Your task to perform on an android device: make emails show in primary in the gmail app Image 0: 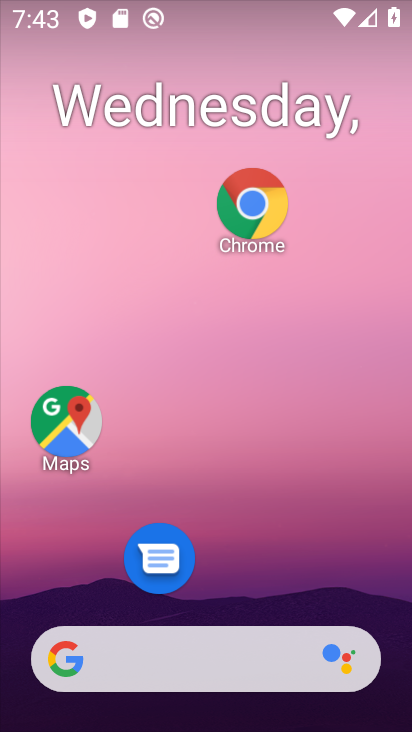
Step 0: press home button
Your task to perform on an android device: make emails show in primary in the gmail app Image 1: 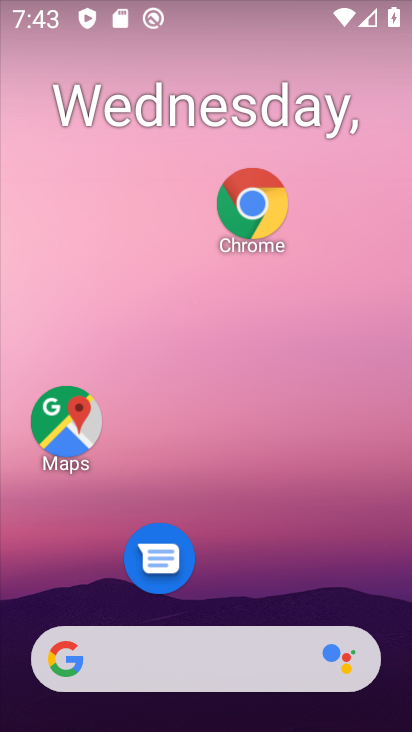
Step 1: drag from (214, 609) to (257, 86)
Your task to perform on an android device: make emails show in primary in the gmail app Image 2: 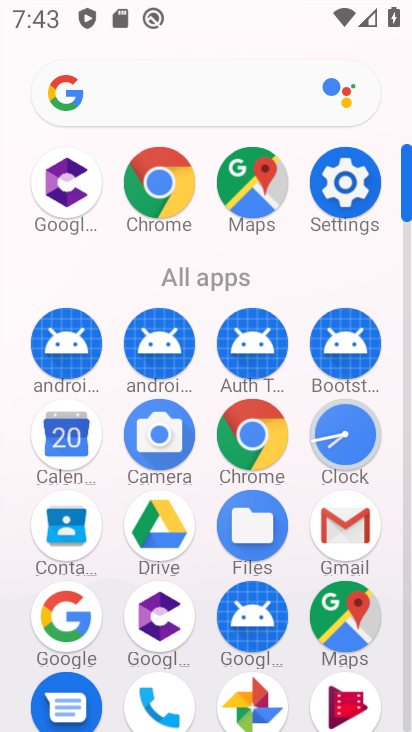
Step 2: click (344, 518)
Your task to perform on an android device: make emails show in primary in the gmail app Image 3: 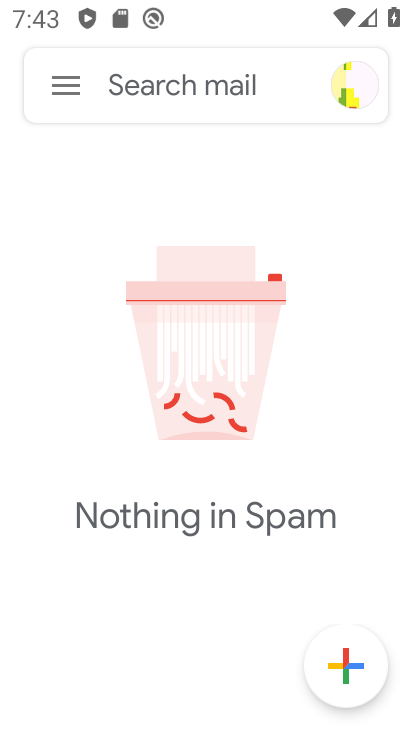
Step 3: click (66, 77)
Your task to perform on an android device: make emails show in primary in the gmail app Image 4: 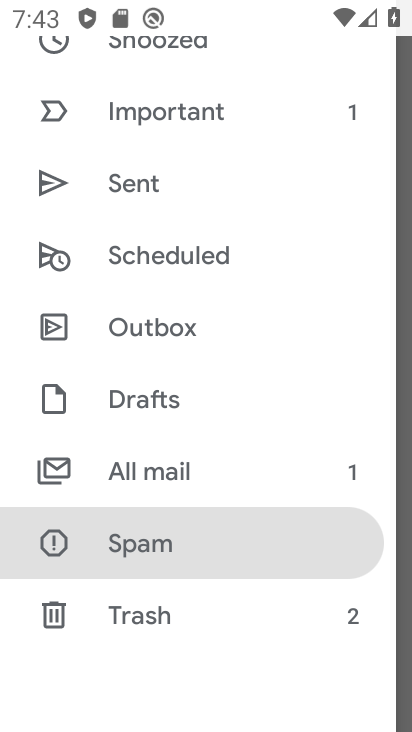
Step 4: drag from (163, 621) to (198, 65)
Your task to perform on an android device: make emails show in primary in the gmail app Image 5: 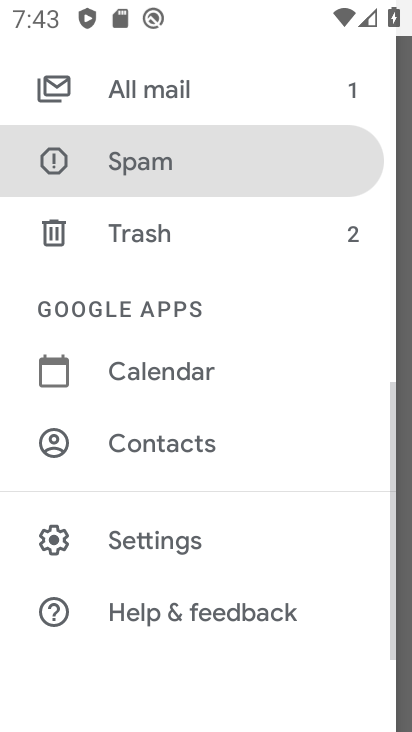
Step 5: click (165, 539)
Your task to perform on an android device: make emails show in primary in the gmail app Image 6: 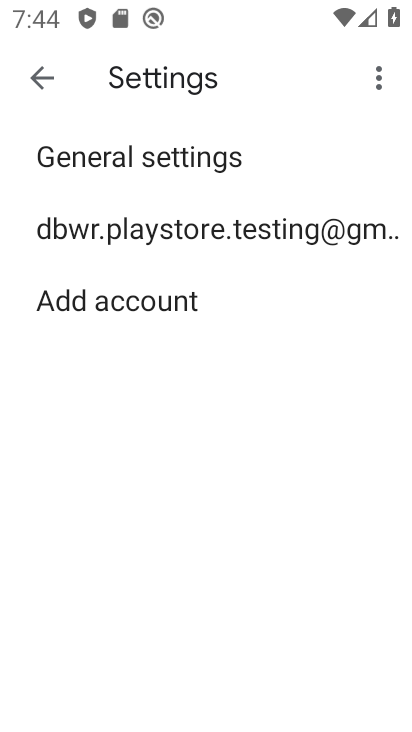
Step 6: click (228, 227)
Your task to perform on an android device: make emails show in primary in the gmail app Image 7: 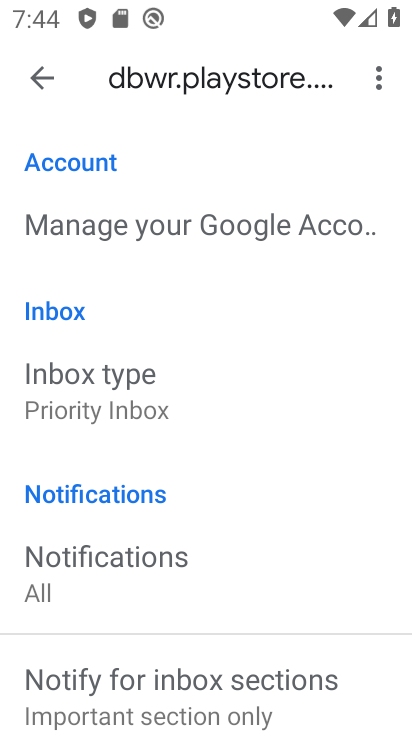
Step 7: click (183, 386)
Your task to perform on an android device: make emails show in primary in the gmail app Image 8: 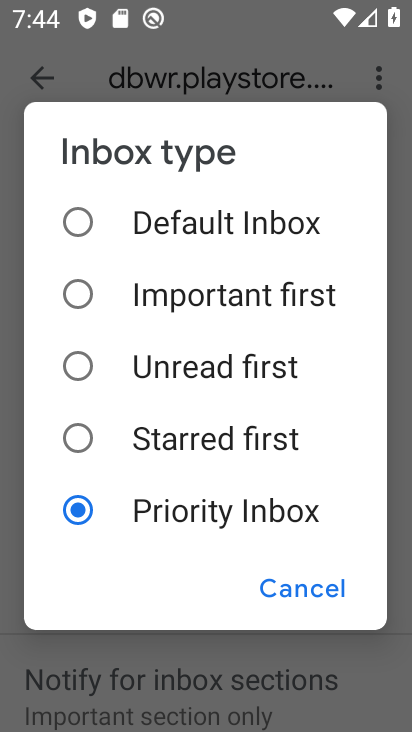
Step 8: click (77, 216)
Your task to perform on an android device: make emails show in primary in the gmail app Image 9: 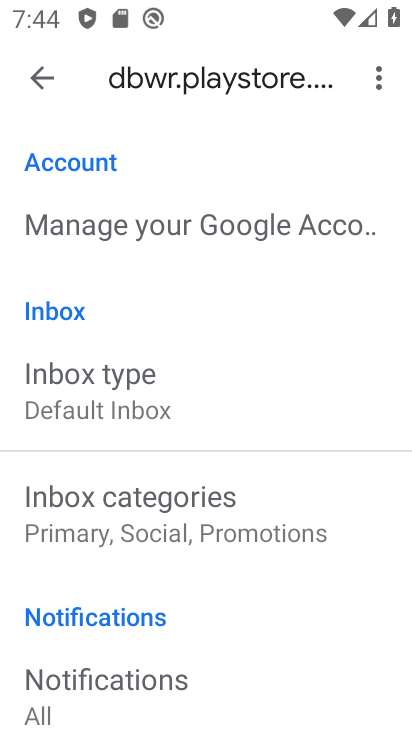
Step 9: task complete